Your task to perform on an android device: Open location settings Image 0: 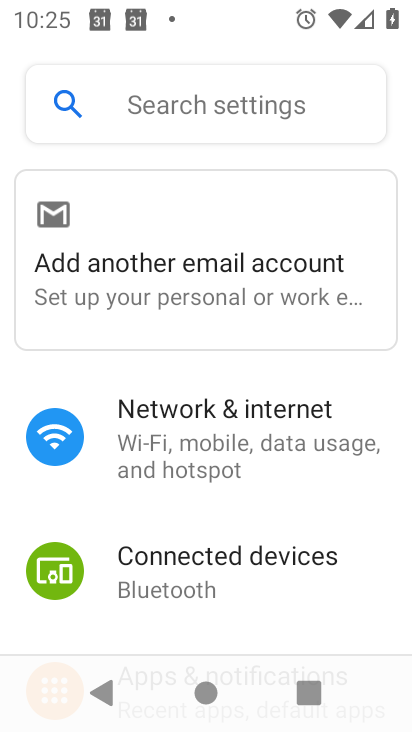
Step 0: drag from (365, 585) to (350, 74)
Your task to perform on an android device: Open location settings Image 1: 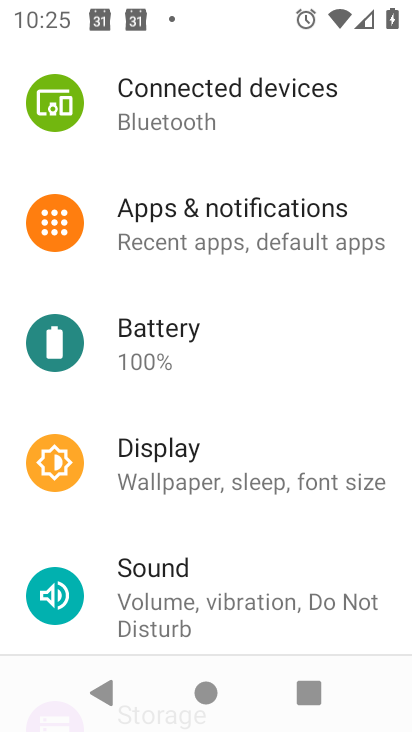
Step 1: drag from (338, 507) to (316, 69)
Your task to perform on an android device: Open location settings Image 2: 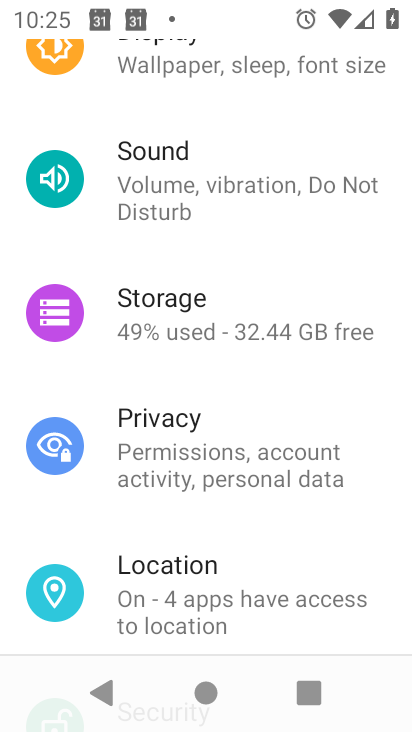
Step 2: click (160, 587)
Your task to perform on an android device: Open location settings Image 3: 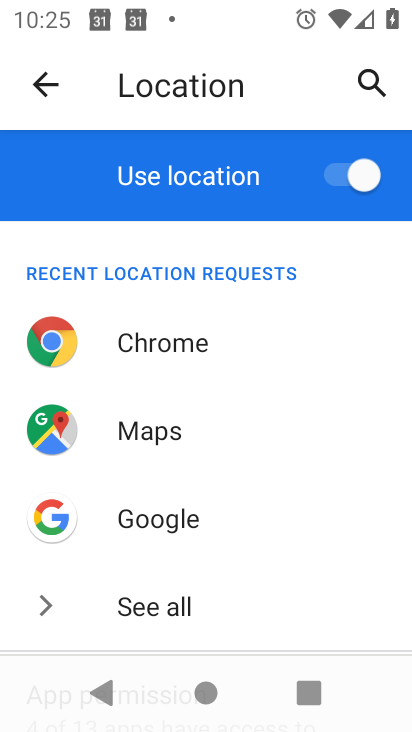
Step 3: task complete